Your task to perform on an android device: toggle location history Image 0: 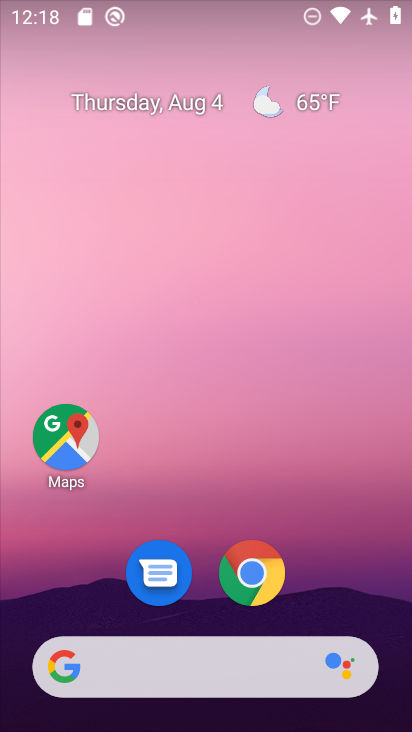
Step 0: drag from (353, 529) to (379, 38)
Your task to perform on an android device: toggle location history Image 1: 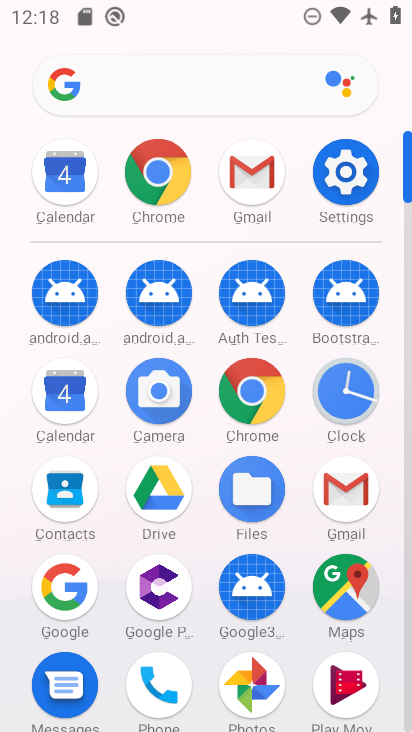
Step 1: click (340, 175)
Your task to perform on an android device: toggle location history Image 2: 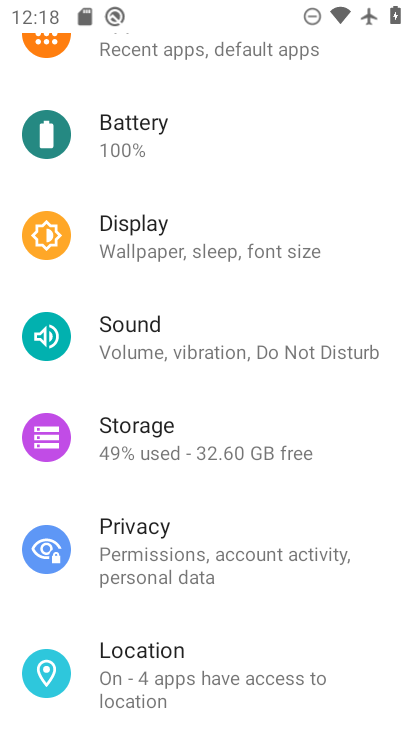
Step 2: click (186, 678)
Your task to perform on an android device: toggle location history Image 3: 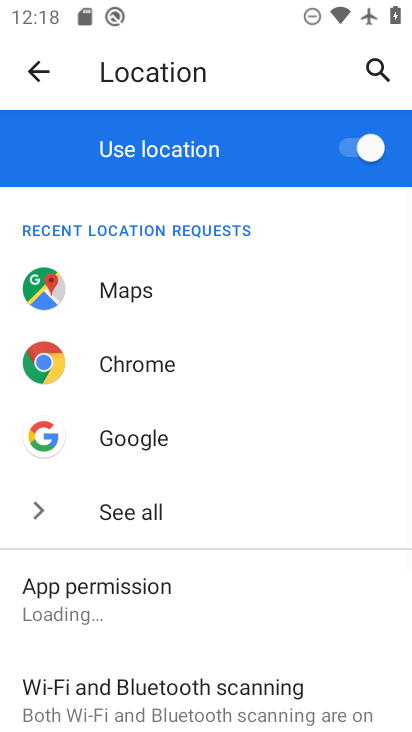
Step 3: drag from (186, 664) to (207, 154)
Your task to perform on an android device: toggle location history Image 4: 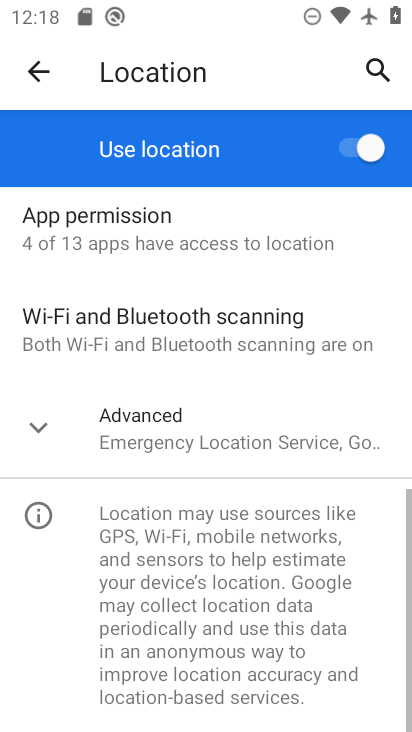
Step 4: click (159, 444)
Your task to perform on an android device: toggle location history Image 5: 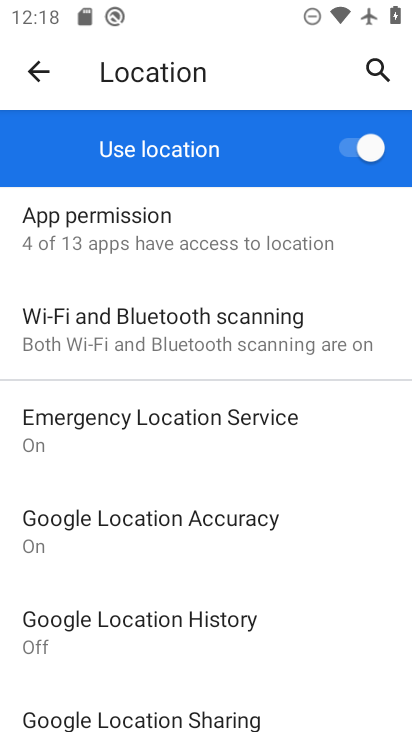
Step 5: click (218, 635)
Your task to perform on an android device: toggle location history Image 6: 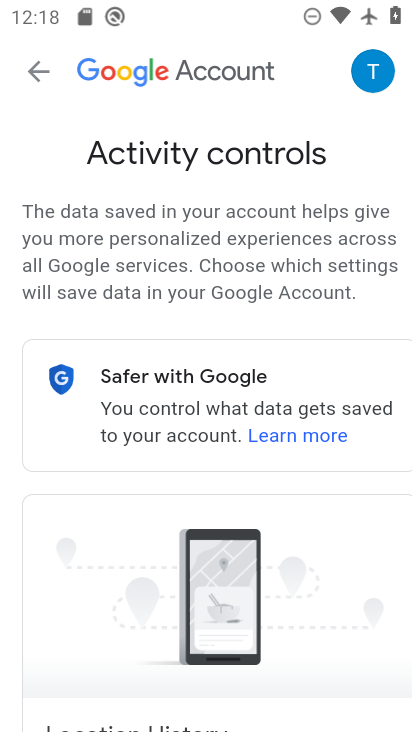
Step 6: drag from (221, 603) to (222, 168)
Your task to perform on an android device: toggle location history Image 7: 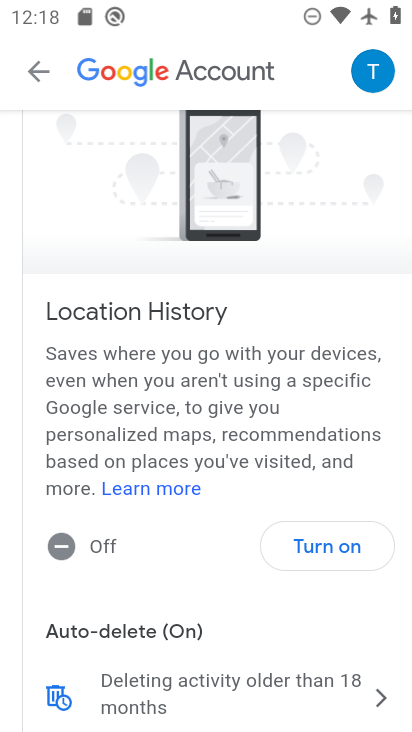
Step 7: click (335, 544)
Your task to perform on an android device: toggle location history Image 8: 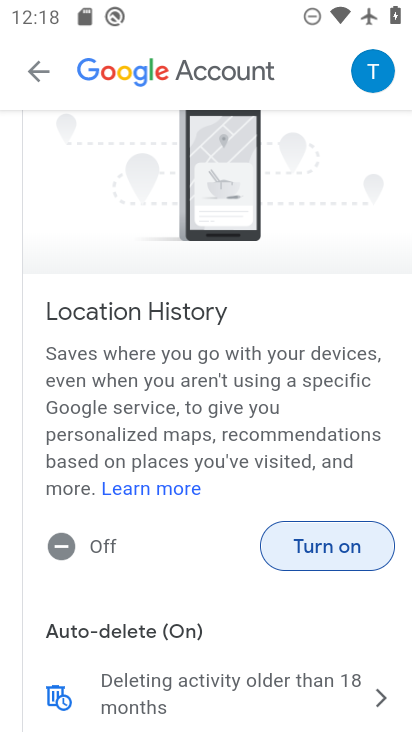
Step 8: click (333, 543)
Your task to perform on an android device: toggle location history Image 9: 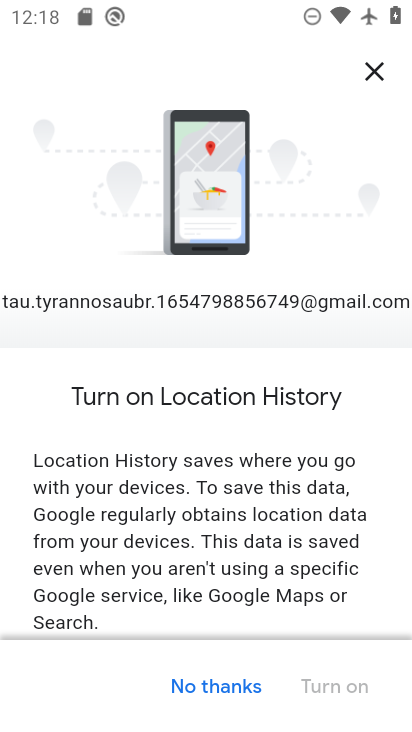
Step 9: drag from (293, 579) to (283, 224)
Your task to perform on an android device: toggle location history Image 10: 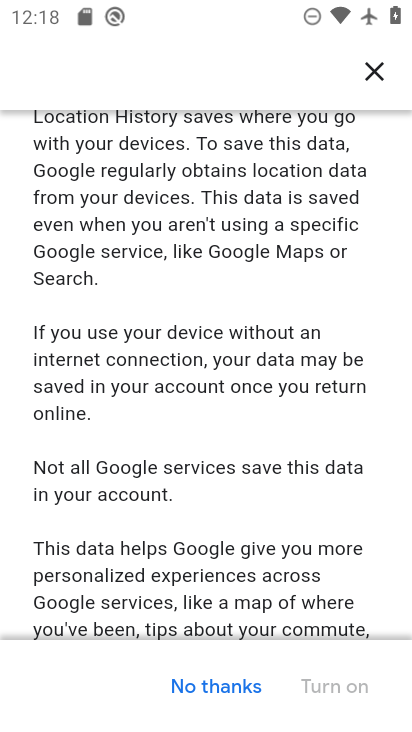
Step 10: drag from (273, 578) to (276, 175)
Your task to perform on an android device: toggle location history Image 11: 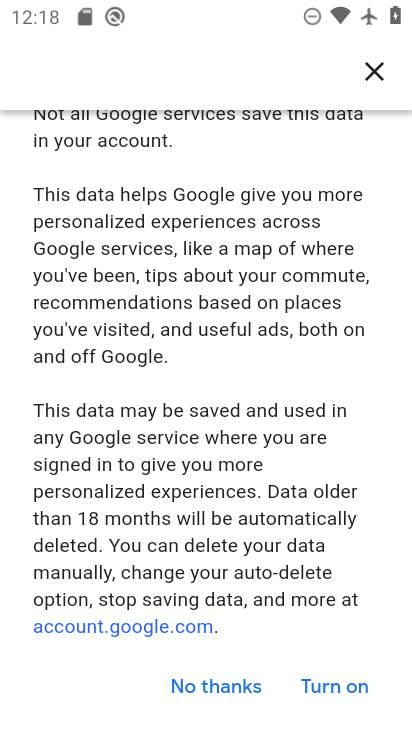
Step 11: click (335, 685)
Your task to perform on an android device: toggle location history Image 12: 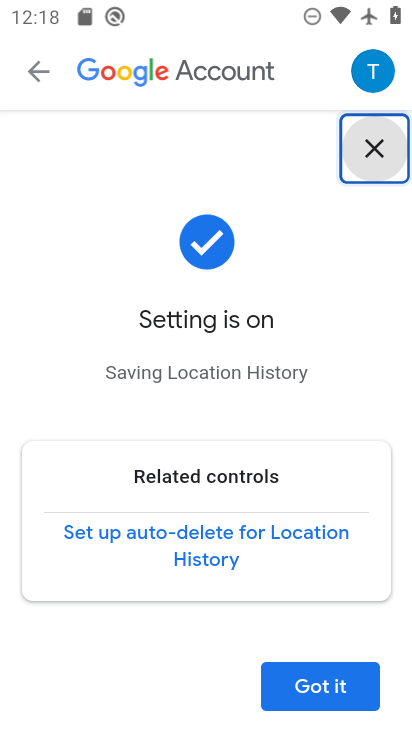
Step 12: task complete